Your task to perform on an android device: Go to location settings Image 0: 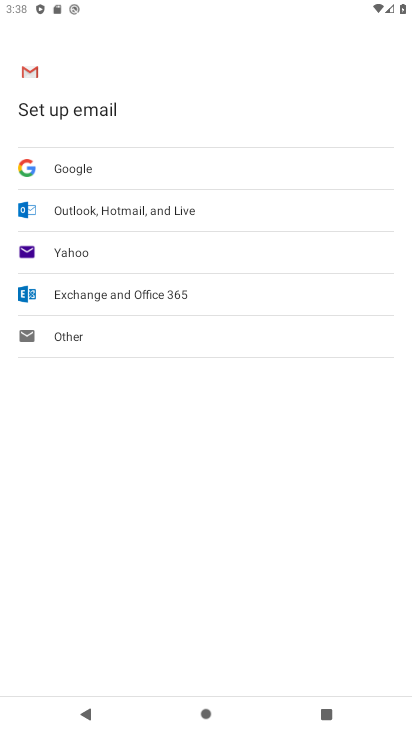
Step 0: click (127, 613)
Your task to perform on an android device: Go to location settings Image 1: 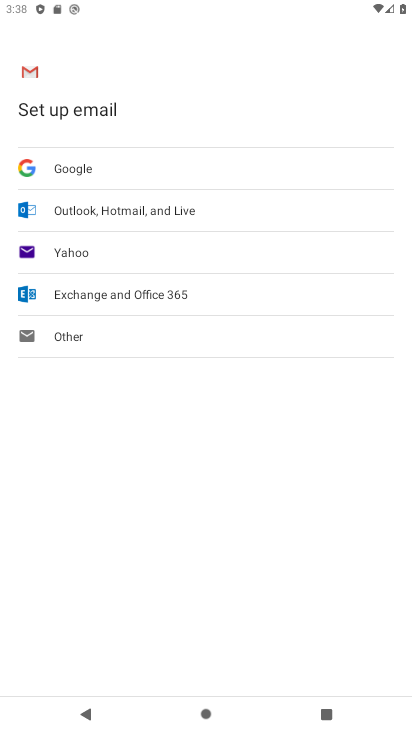
Step 1: press home button
Your task to perform on an android device: Go to location settings Image 2: 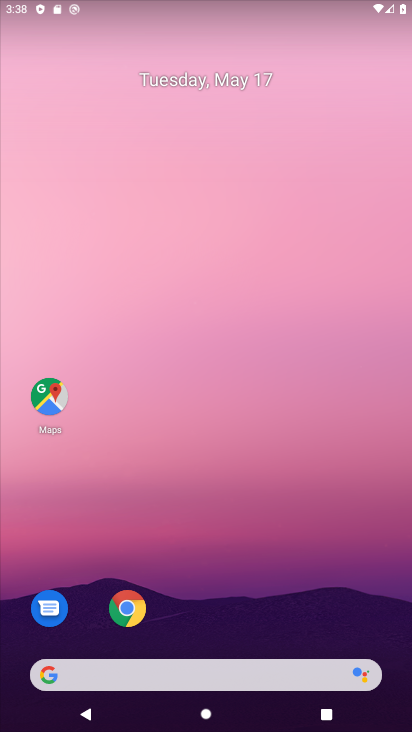
Step 2: drag from (201, 657) to (244, 256)
Your task to perform on an android device: Go to location settings Image 3: 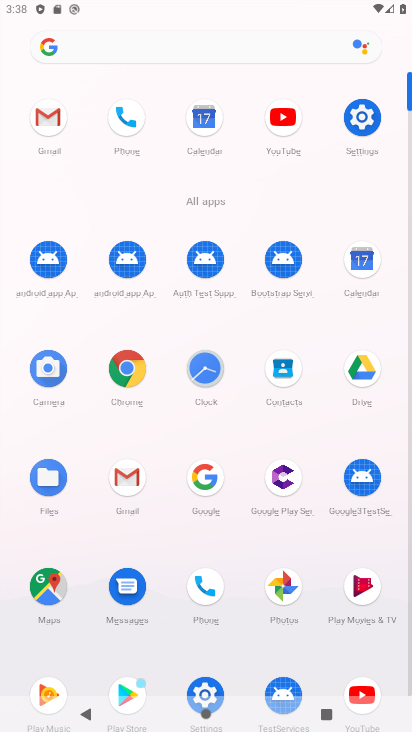
Step 3: click (359, 124)
Your task to perform on an android device: Go to location settings Image 4: 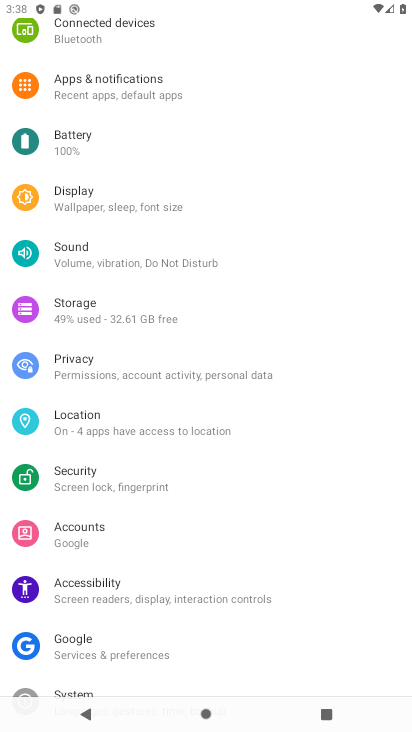
Step 4: click (117, 414)
Your task to perform on an android device: Go to location settings Image 5: 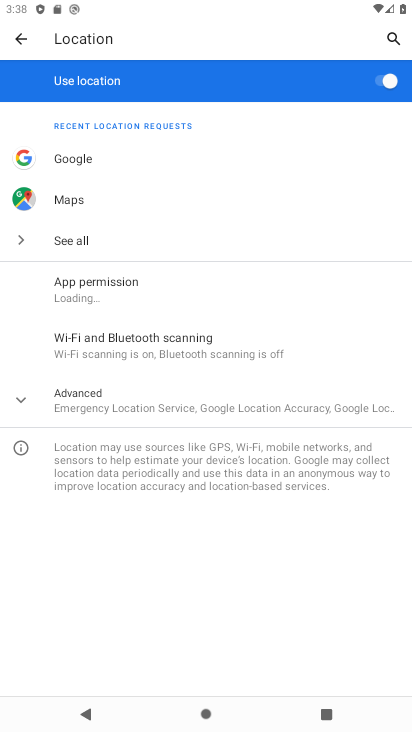
Step 5: click (101, 394)
Your task to perform on an android device: Go to location settings Image 6: 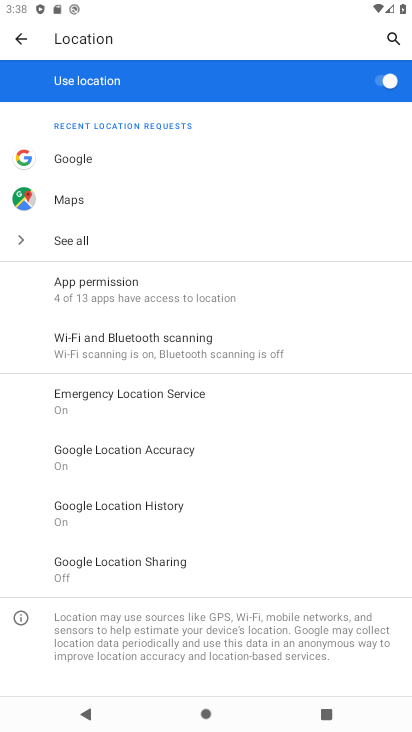
Step 6: task complete